Your task to perform on an android device: Do I have any events tomorrow? Image 0: 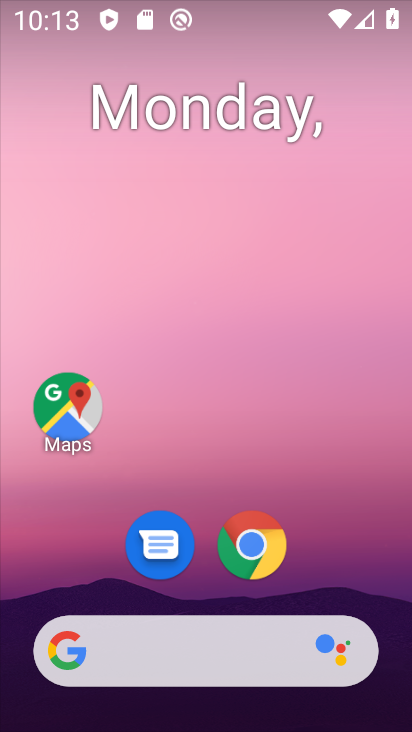
Step 0: drag from (367, 577) to (303, 149)
Your task to perform on an android device: Do I have any events tomorrow? Image 1: 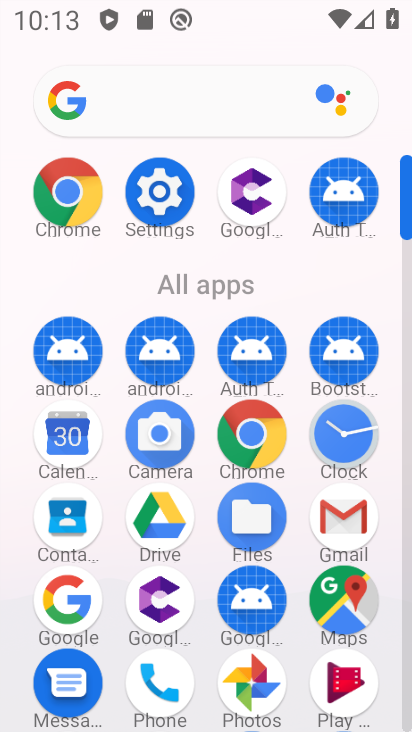
Step 1: click (60, 447)
Your task to perform on an android device: Do I have any events tomorrow? Image 2: 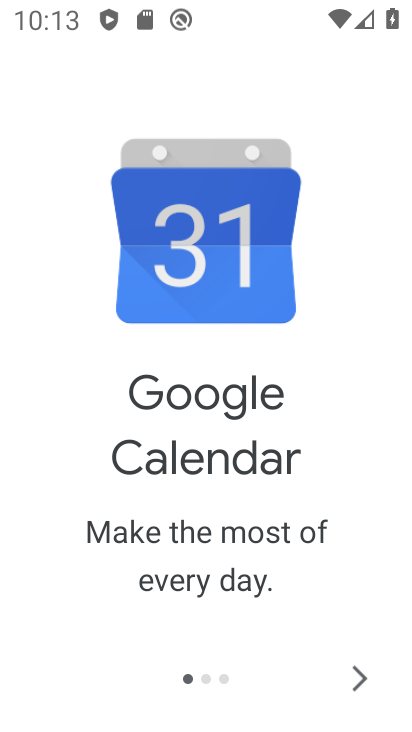
Step 2: click (367, 670)
Your task to perform on an android device: Do I have any events tomorrow? Image 3: 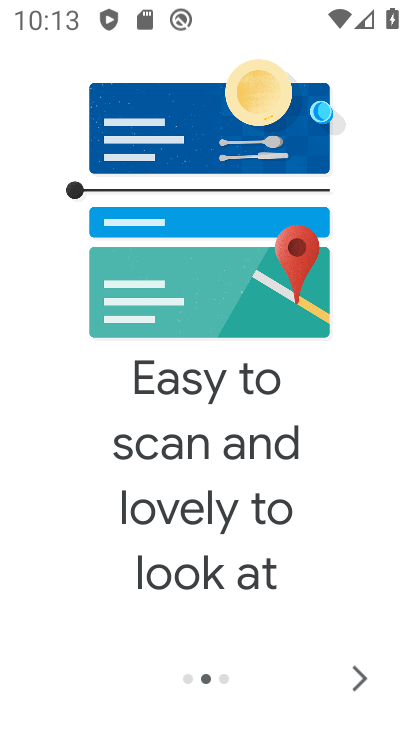
Step 3: click (366, 671)
Your task to perform on an android device: Do I have any events tomorrow? Image 4: 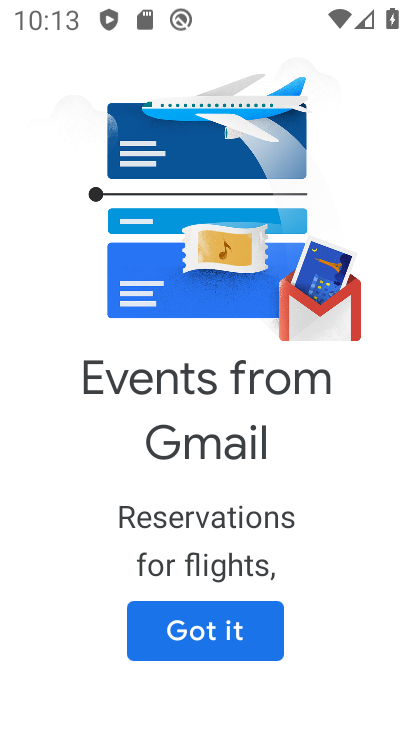
Step 4: click (224, 616)
Your task to perform on an android device: Do I have any events tomorrow? Image 5: 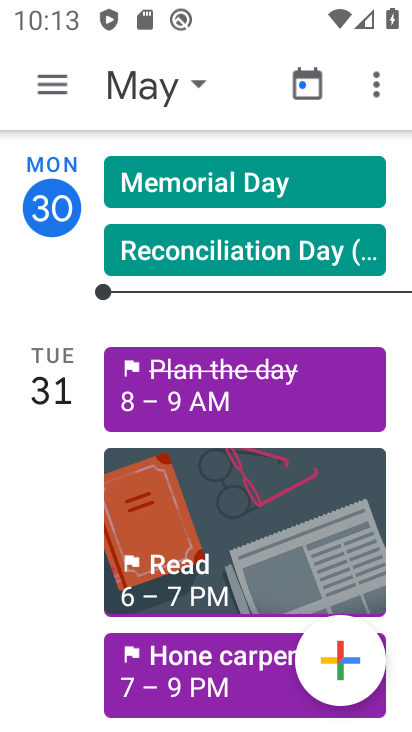
Step 5: task complete